Your task to perform on an android device: Open wifi settings Image 0: 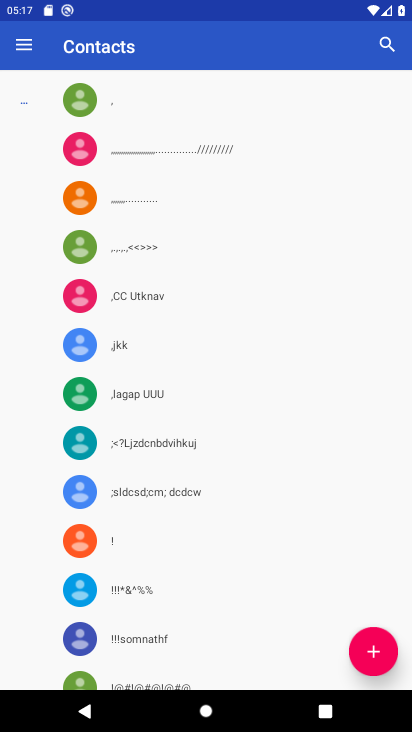
Step 0: press home button
Your task to perform on an android device: Open wifi settings Image 1: 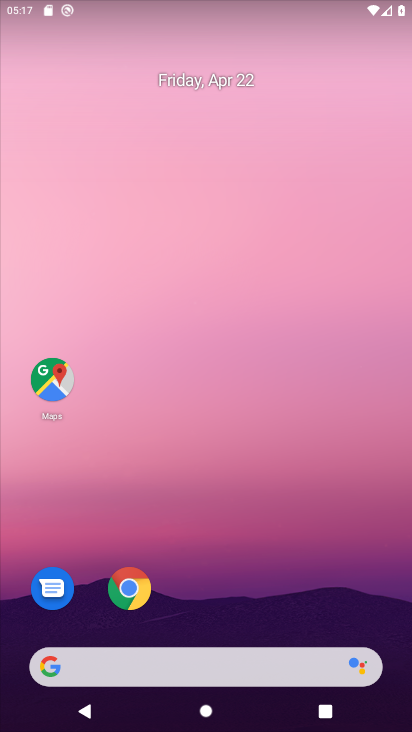
Step 1: drag from (238, 596) to (254, 59)
Your task to perform on an android device: Open wifi settings Image 2: 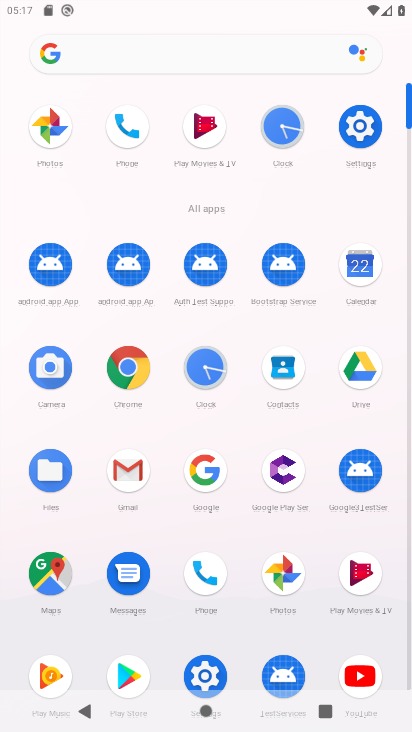
Step 2: click (359, 127)
Your task to perform on an android device: Open wifi settings Image 3: 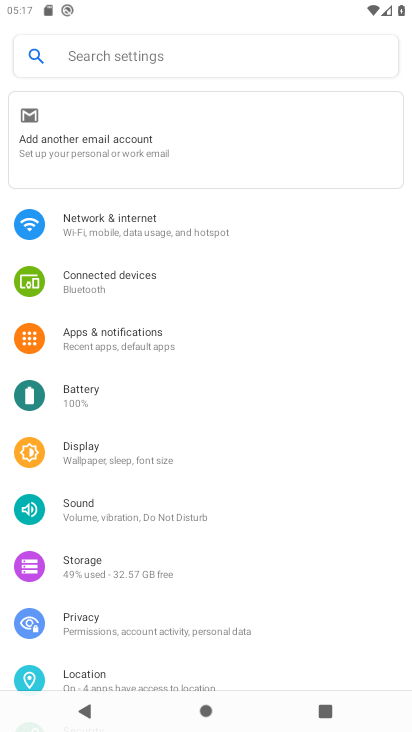
Step 3: click (134, 223)
Your task to perform on an android device: Open wifi settings Image 4: 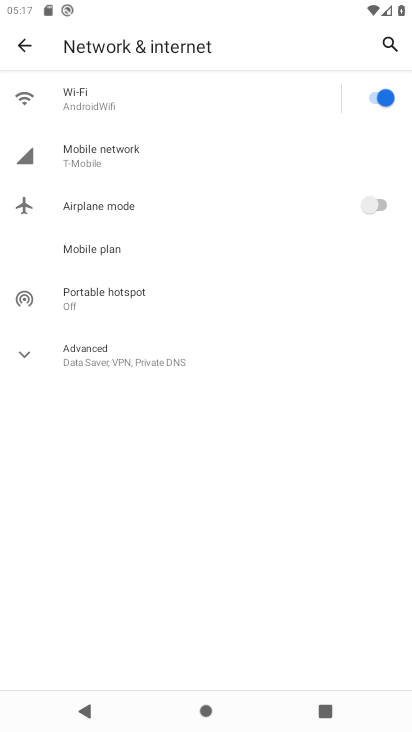
Step 4: click (102, 91)
Your task to perform on an android device: Open wifi settings Image 5: 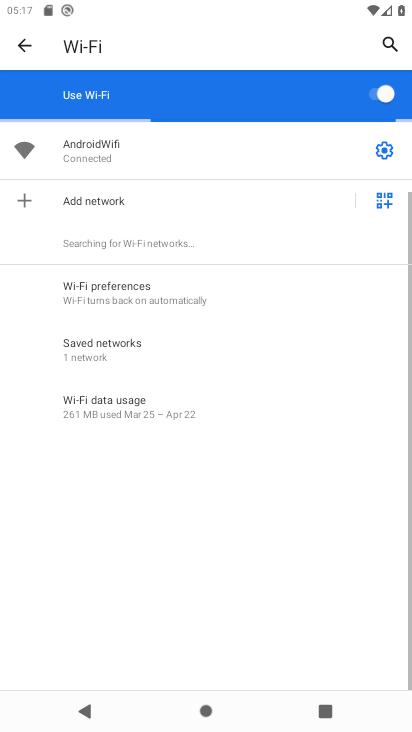
Step 5: task complete